Your task to perform on an android device: all mails in gmail Image 0: 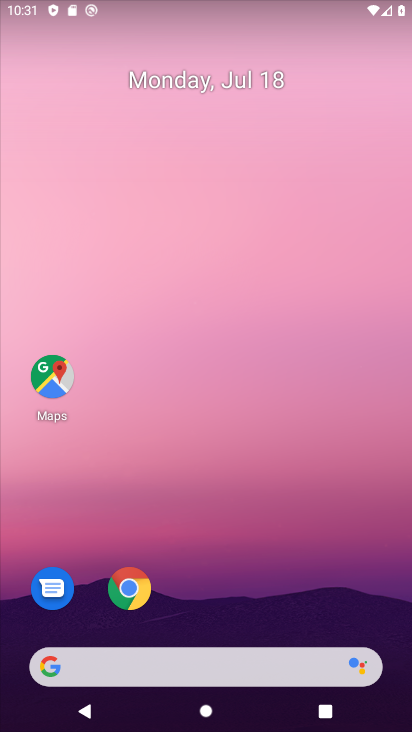
Step 0: drag from (206, 625) to (186, 8)
Your task to perform on an android device: all mails in gmail Image 1: 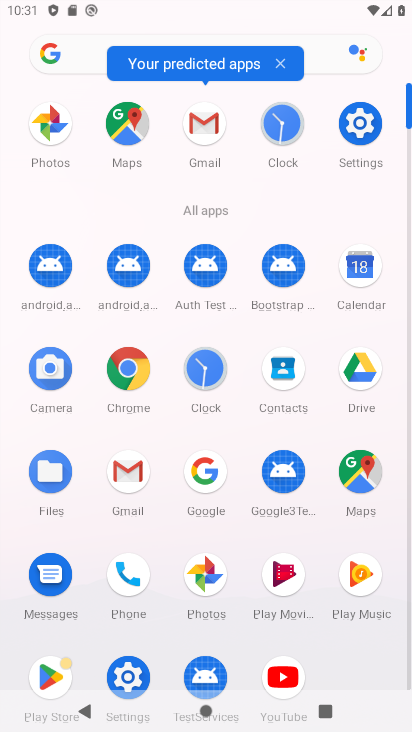
Step 1: click (129, 485)
Your task to perform on an android device: all mails in gmail Image 2: 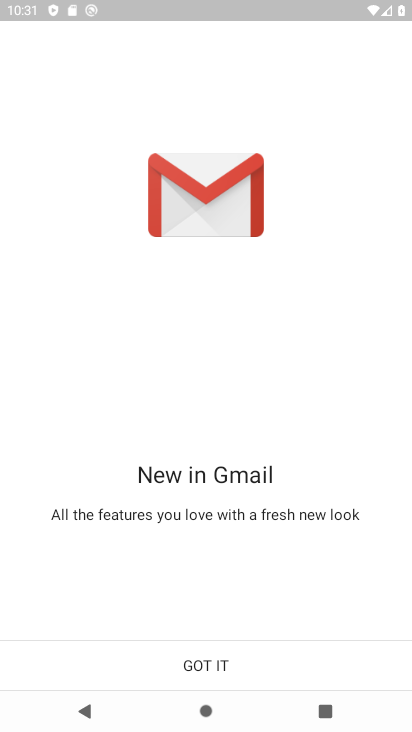
Step 2: click (148, 670)
Your task to perform on an android device: all mails in gmail Image 3: 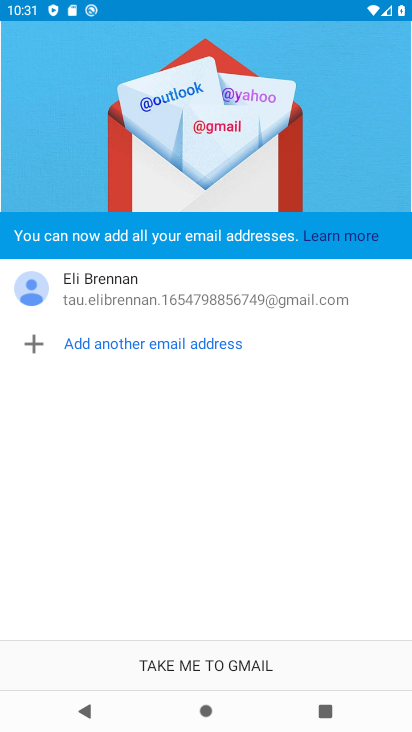
Step 3: click (212, 677)
Your task to perform on an android device: all mails in gmail Image 4: 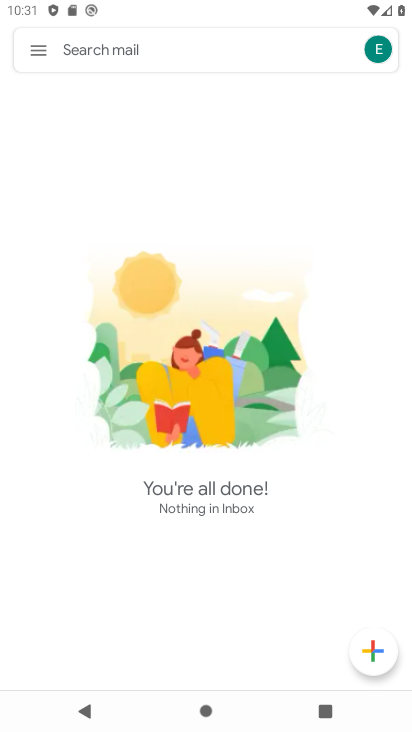
Step 4: task complete